Your task to perform on an android device: Turn on the flashlight Image 0: 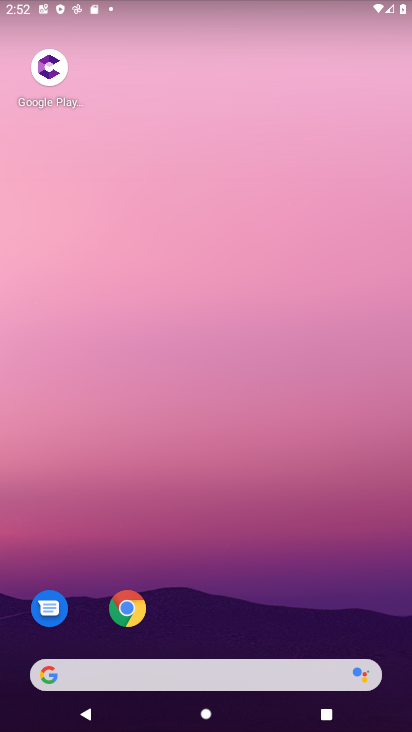
Step 0: drag from (359, 626) to (282, 75)
Your task to perform on an android device: Turn on the flashlight Image 1: 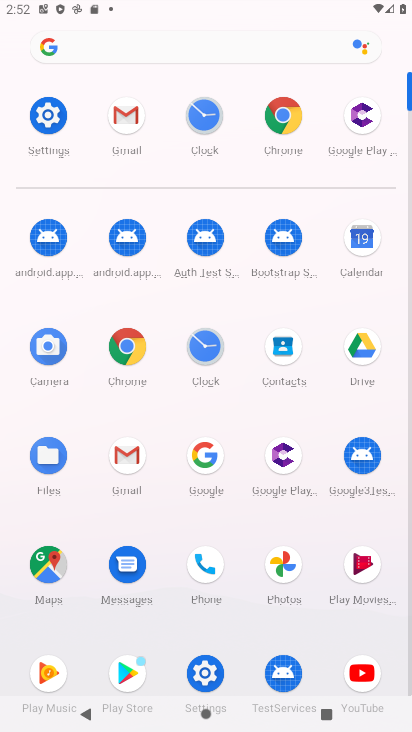
Step 1: click (70, 132)
Your task to perform on an android device: Turn on the flashlight Image 2: 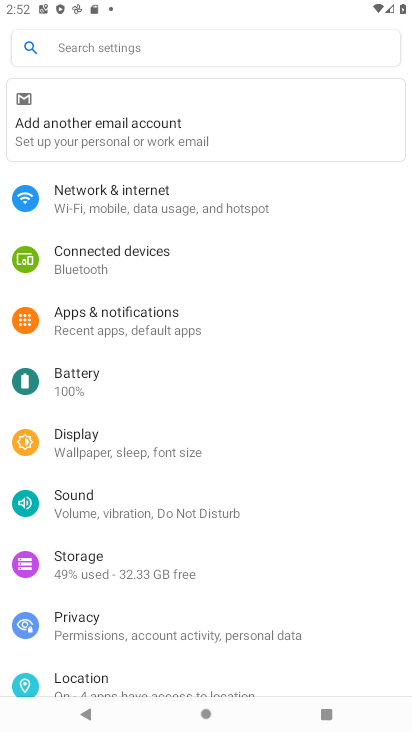
Step 2: click (136, 258)
Your task to perform on an android device: Turn on the flashlight Image 3: 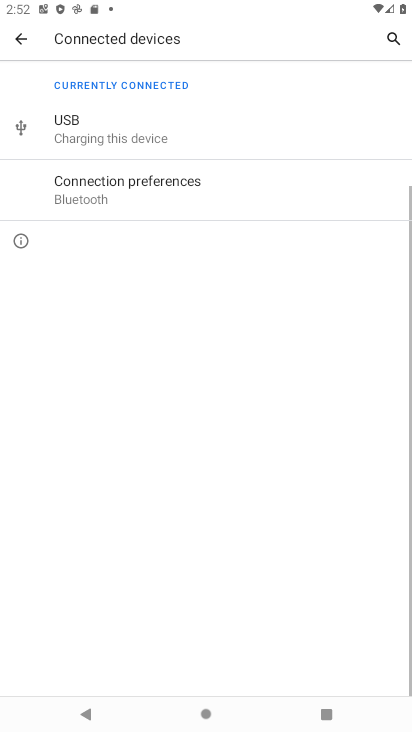
Step 3: task complete